Your task to perform on an android device: Clear the shopping cart on newegg.com. Add razer blade to the cart on newegg.com, then select checkout. Image 0: 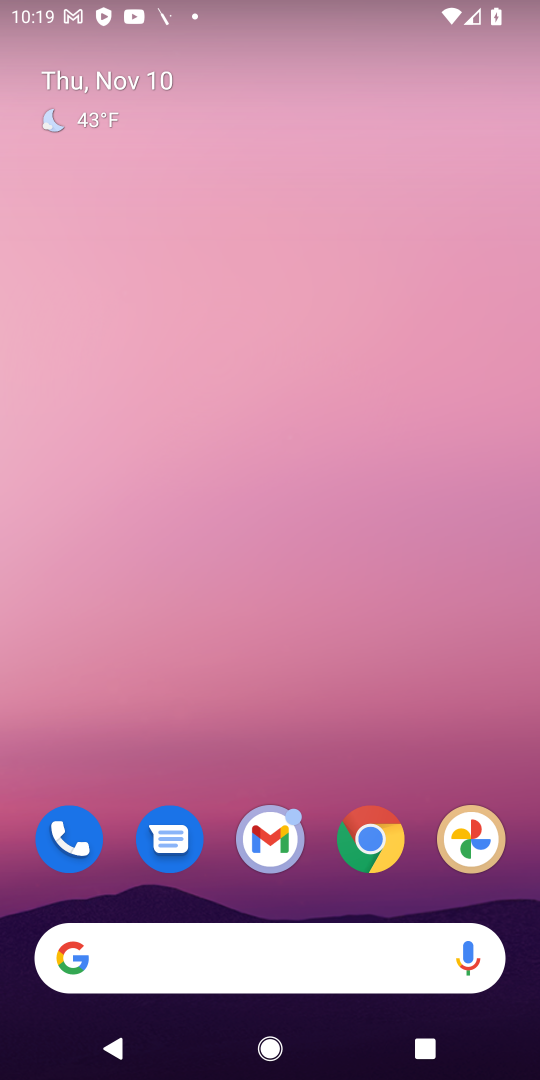
Step 0: click (376, 832)
Your task to perform on an android device: Clear the shopping cart on newegg.com. Add razer blade to the cart on newegg.com, then select checkout. Image 1: 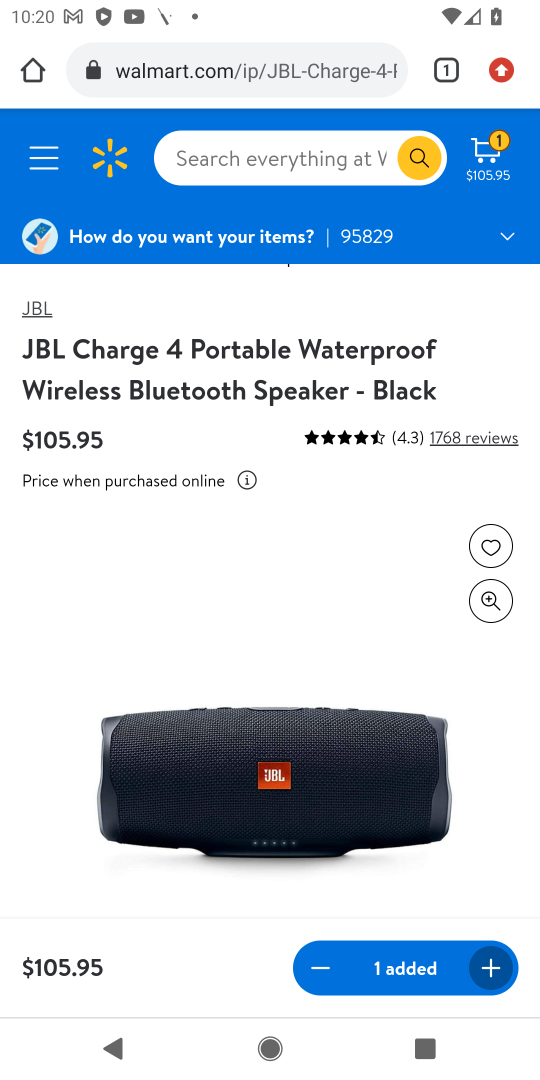
Step 1: click (293, 64)
Your task to perform on an android device: Clear the shopping cart on newegg.com. Add razer blade to the cart on newegg.com, then select checkout. Image 2: 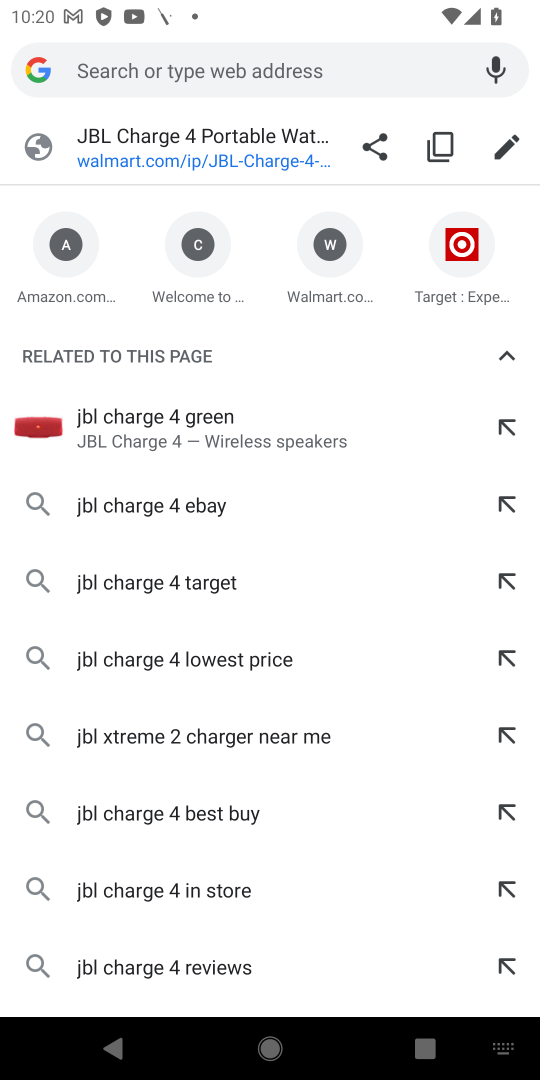
Step 2: type "newegg.com"
Your task to perform on an android device: Clear the shopping cart on newegg.com. Add razer blade to the cart on newegg.com, then select checkout. Image 3: 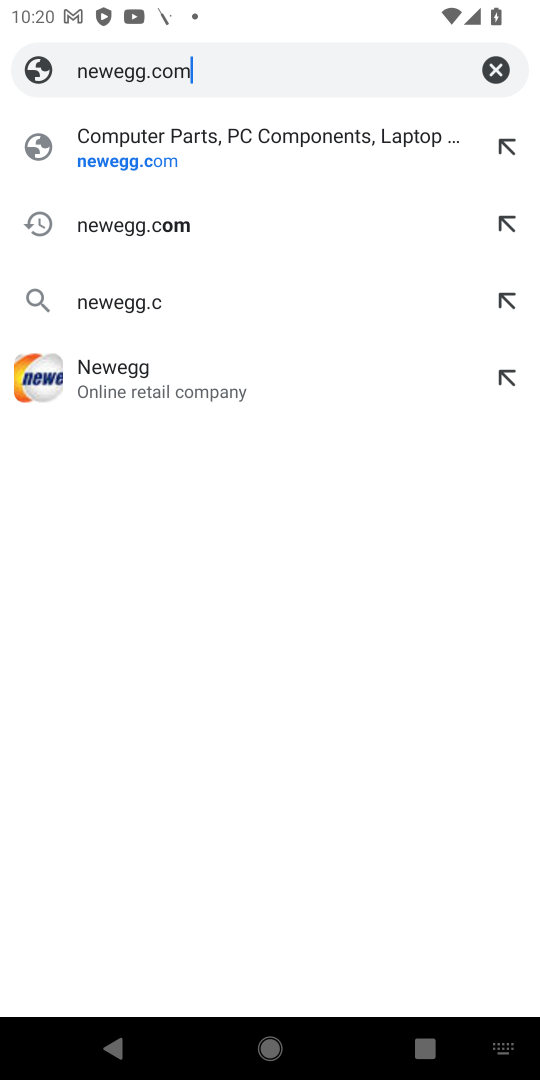
Step 3: press enter
Your task to perform on an android device: Clear the shopping cart on newegg.com. Add razer blade to the cart on newegg.com, then select checkout. Image 4: 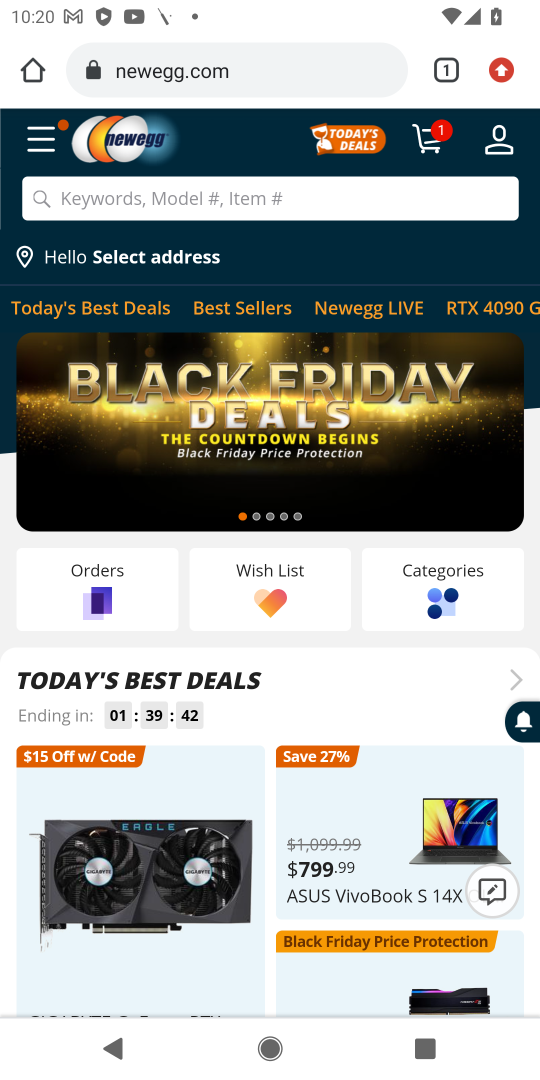
Step 4: click (421, 142)
Your task to perform on an android device: Clear the shopping cart on newegg.com. Add razer blade to the cart on newegg.com, then select checkout. Image 5: 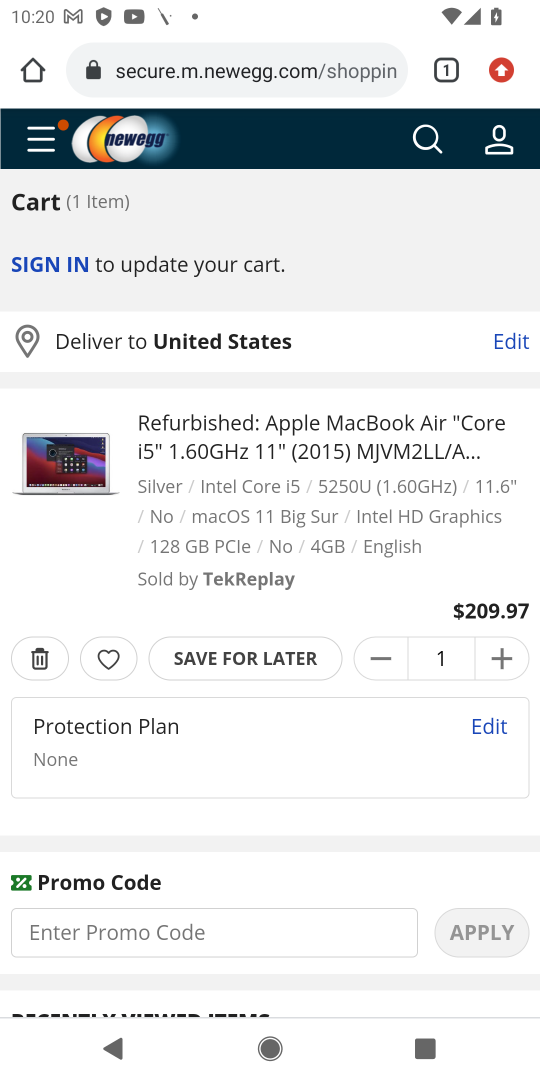
Step 5: click (39, 661)
Your task to perform on an android device: Clear the shopping cart on newegg.com. Add razer blade to the cart on newegg.com, then select checkout. Image 6: 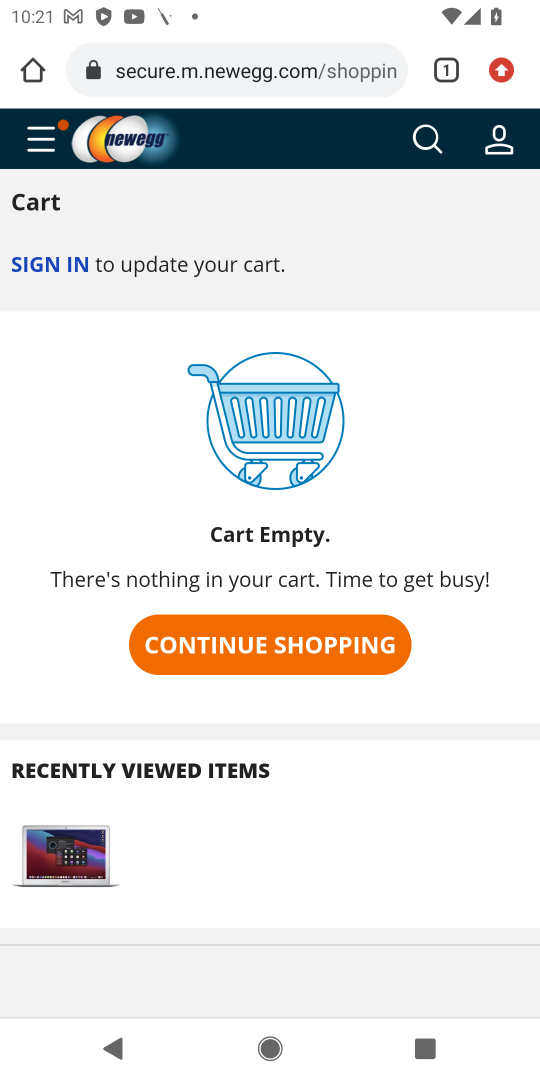
Step 6: click (426, 131)
Your task to perform on an android device: Clear the shopping cart on newegg.com. Add razer blade to the cart on newegg.com, then select checkout. Image 7: 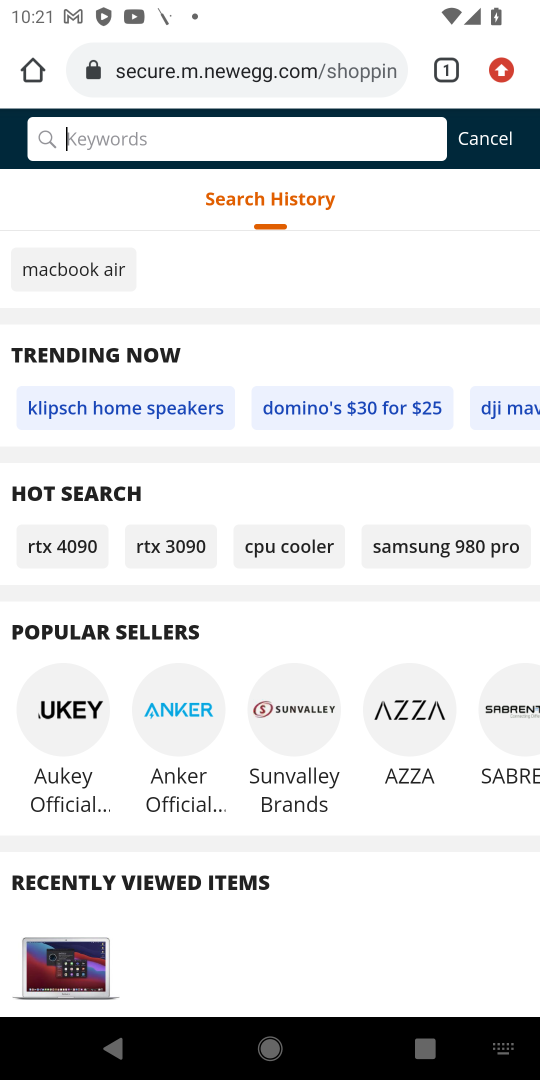
Step 7: press enter
Your task to perform on an android device: Clear the shopping cart on newegg.com. Add razer blade to the cart on newegg.com, then select checkout. Image 8: 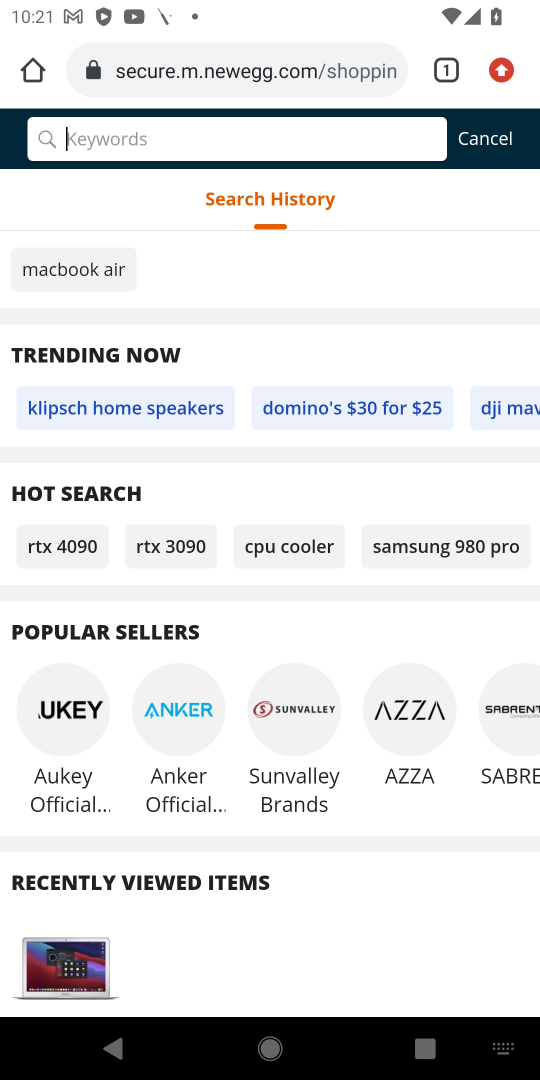
Step 8: type " razer blade "
Your task to perform on an android device: Clear the shopping cart on newegg.com. Add razer blade to the cart on newegg.com, then select checkout. Image 9: 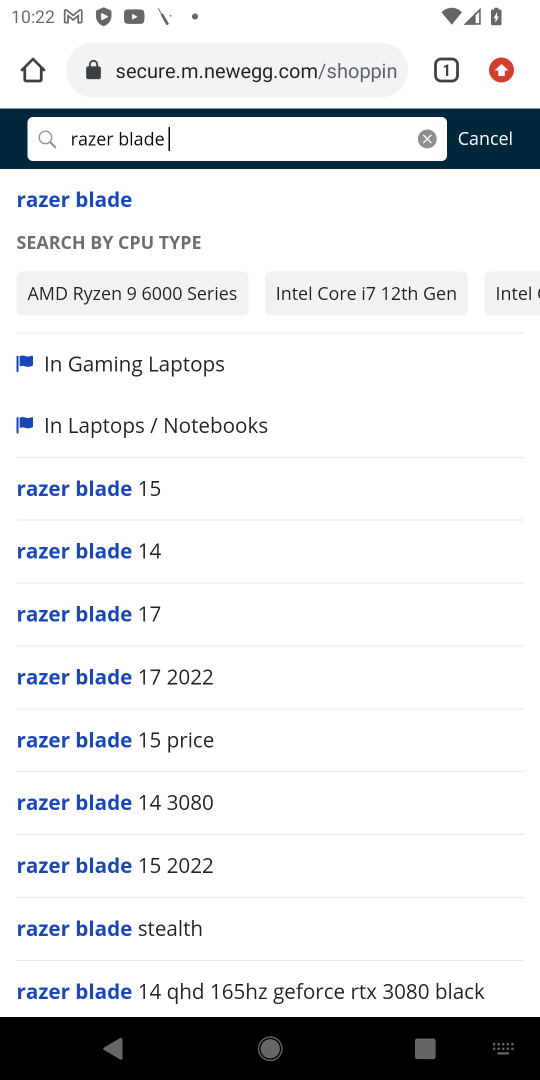
Step 9: click (113, 198)
Your task to perform on an android device: Clear the shopping cart on newegg.com. Add razer blade to the cart on newegg.com, then select checkout. Image 10: 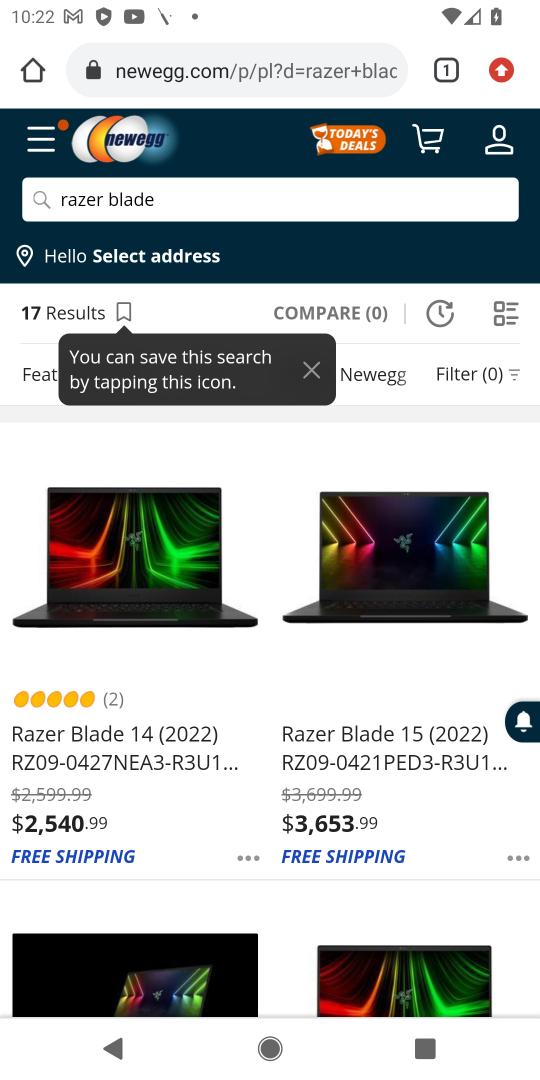
Step 10: click (140, 596)
Your task to perform on an android device: Clear the shopping cart on newegg.com. Add razer blade to the cart on newegg.com, then select checkout. Image 11: 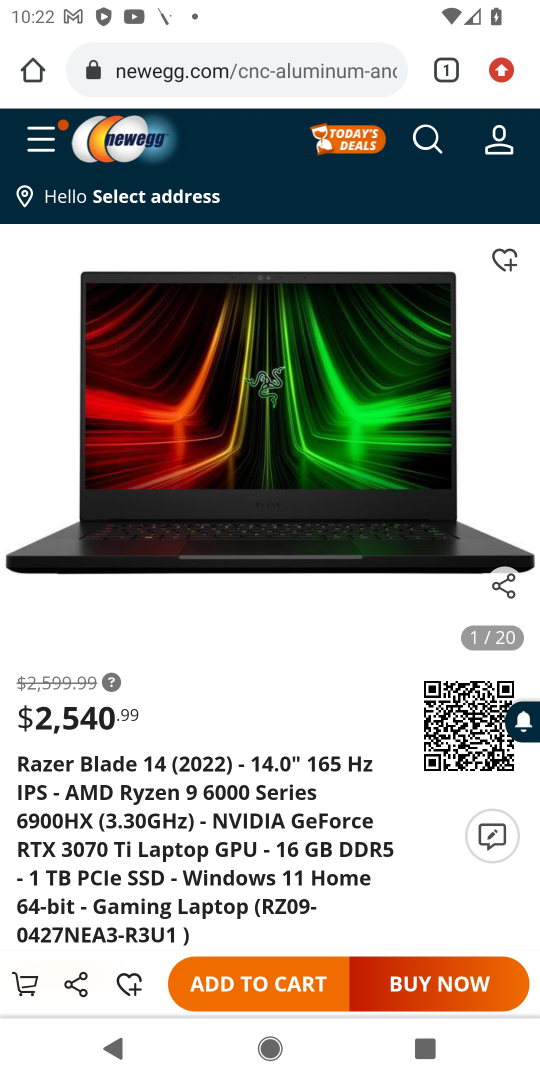
Step 11: click (254, 970)
Your task to perform on an android device: Clear the shopping cart on newegg.com. Add razer blade to the cart on newegg.com, then select checkout. Image 12: 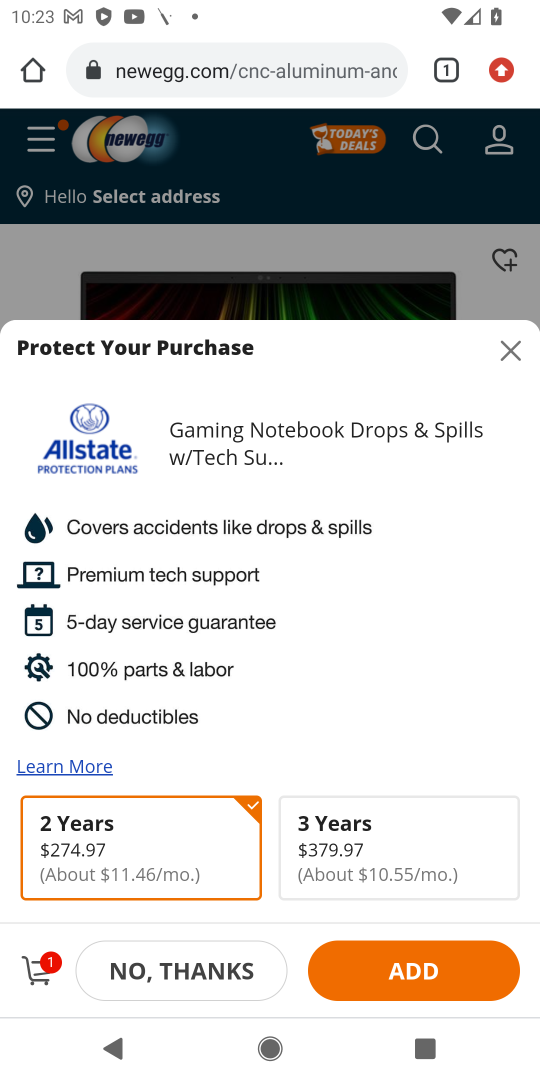
Step 12: click (516, 345)
Your task to perform on an android device: Clear the shopping cart on newegg.com. Add razer blade to the cart on newegg.com, then select checkout. Image 13: 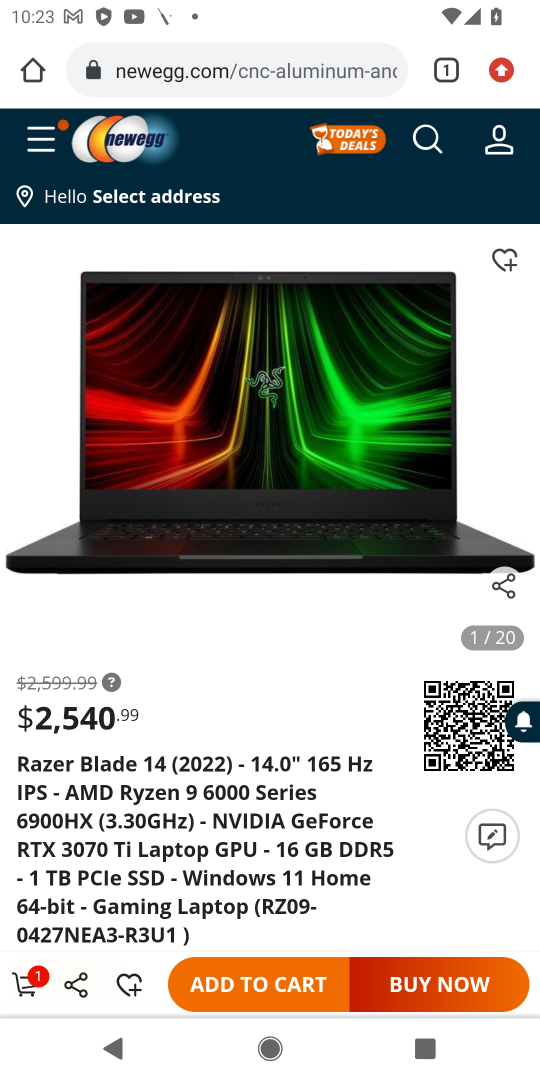
Step 13: click (32, 993)
Your task to perform on an android device: Clear the shopping cart on newegg.com. Add razer blade to the cart on newegg.com, then select checkout. Image 14: 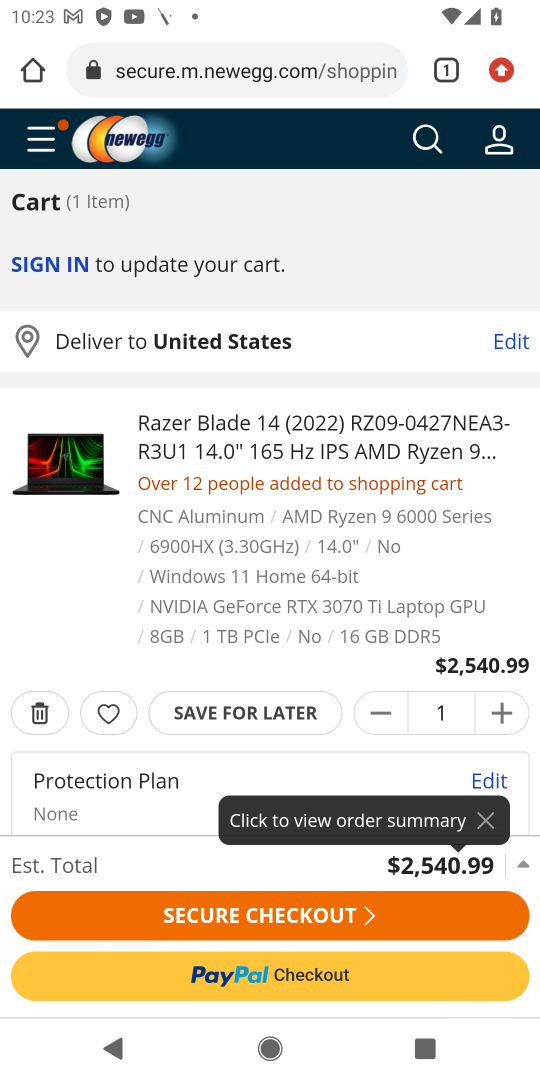
Step 14: click (285, 914)
Your task to perform on an android device: Clear the shopping cart on newegg.com. Add razer blade to the cart on newegg.com, then select checkout. Image 15: 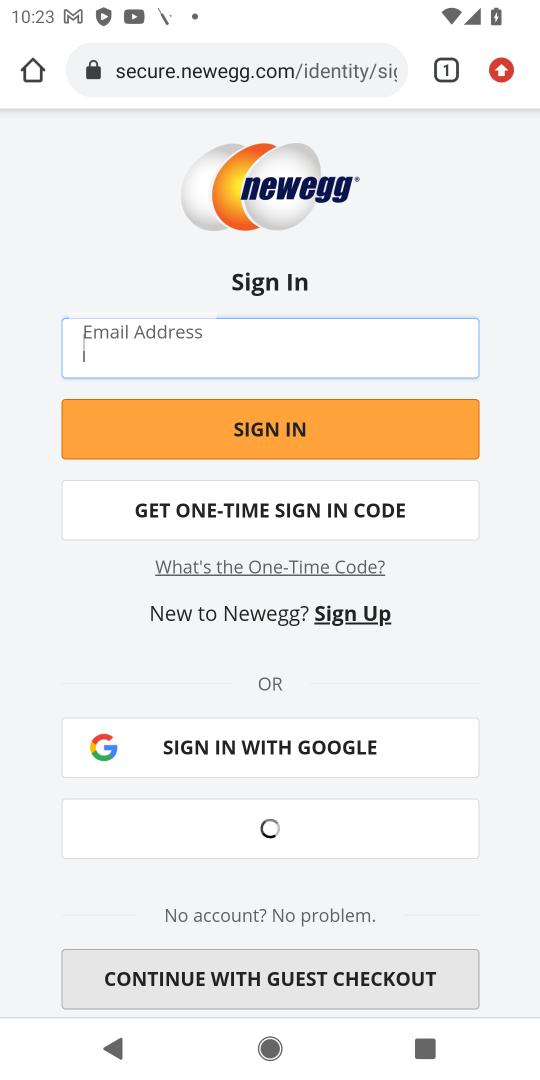
Step 15: task complete